Your task to perform on an android device: turn off wifi Image 0: 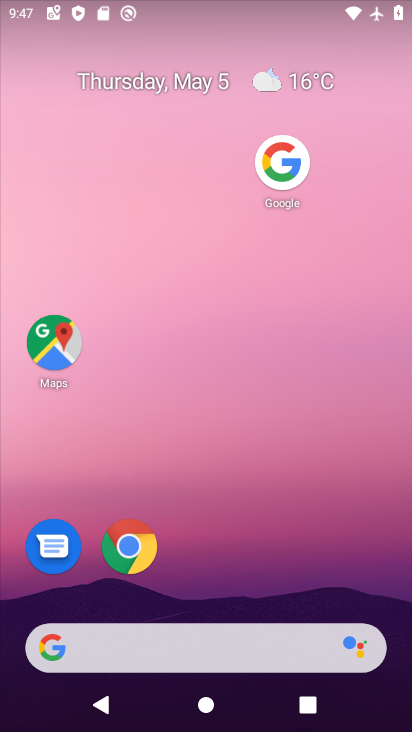
Step 0: drag from (213, 636) to (355, 20)
Your task to perform on an android device: turn off wifi Image 1: 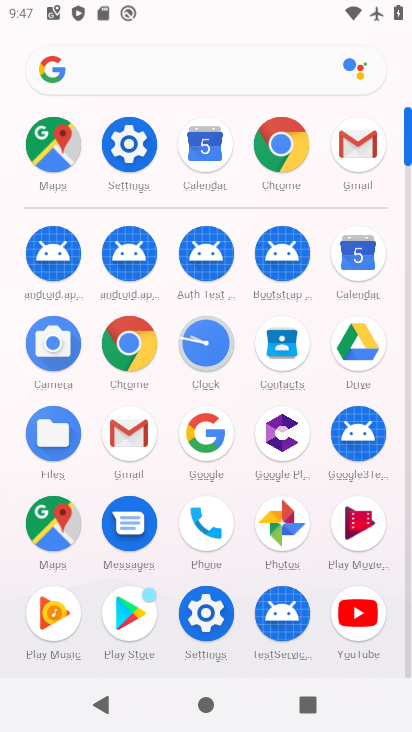
Step 1: click (134, 137)
Your task to perform on an android device: turn off wifi Image 2: 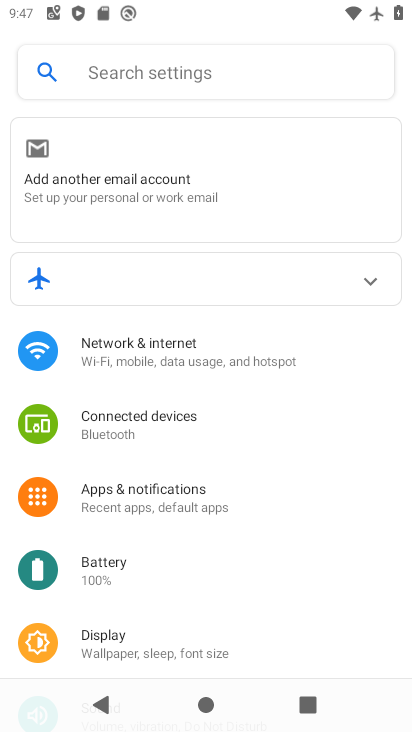
Step 2: click (174, 364)
Your task to perform on an android device: turn off wifi Image 3: 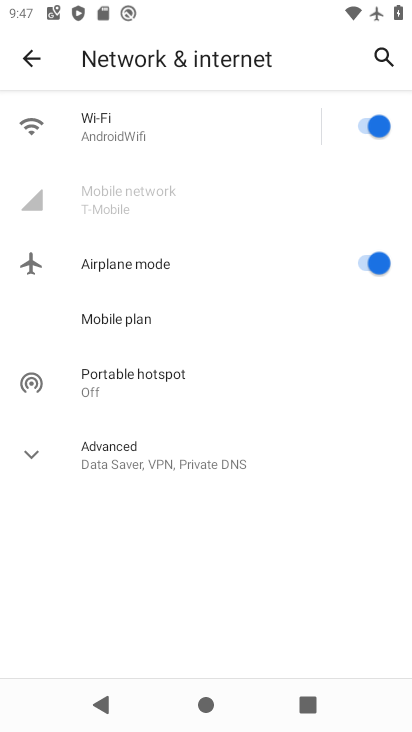
Step 3: click (363, 124)
Your task to perform on an android device: turn off wifi Image 4: 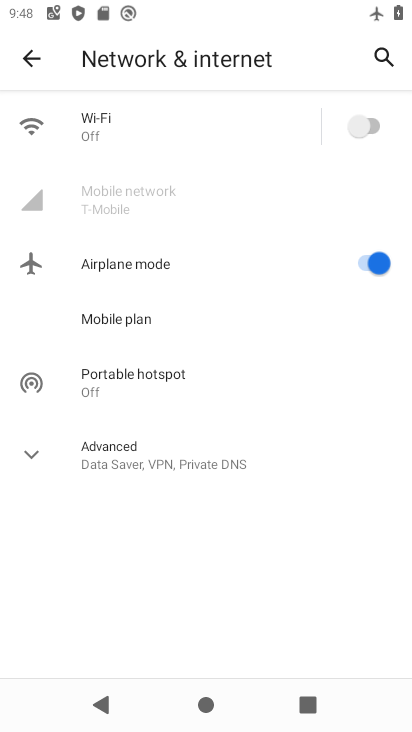
Step 4: task complete